Your task to perform on an android device: open app "Google Maps" Image 0: 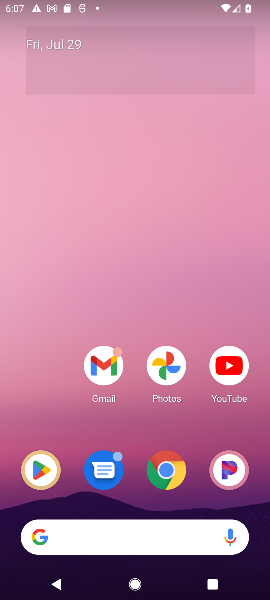
Step 0: drag from (195, 499) to (204, 103)
Your task to perform on an android device: open app "Google Maps" Image 1: 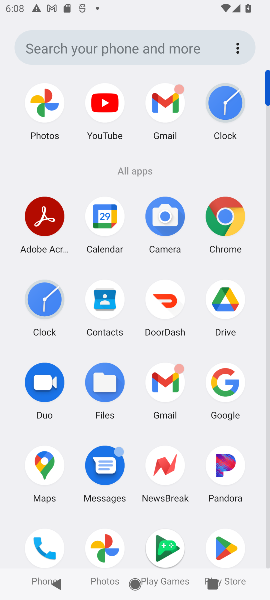
Step 1: drag from (199, 418) to (211, 125)
Your task to perform on an android device: open app "Google Maps" Image 2: 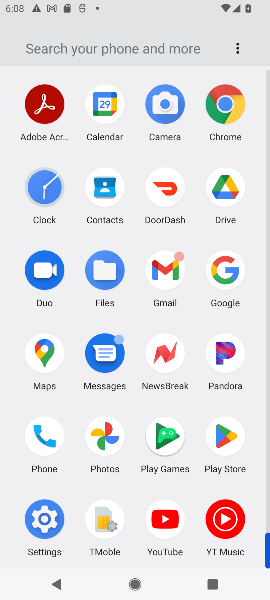
Step 2: drag from (198, 163) to (172, 443)
Your task to perform on an android device: open app "Google Maps" Image 3: 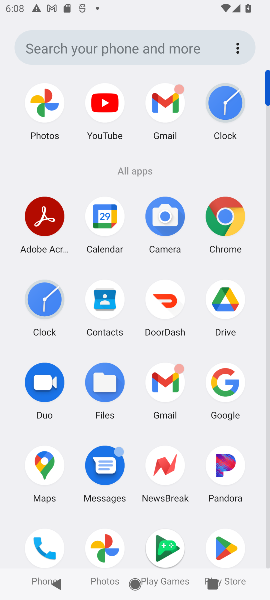
Step 3: click (231, 546)
Your task to perform on an android device: open app "Google Maps" Image 4: 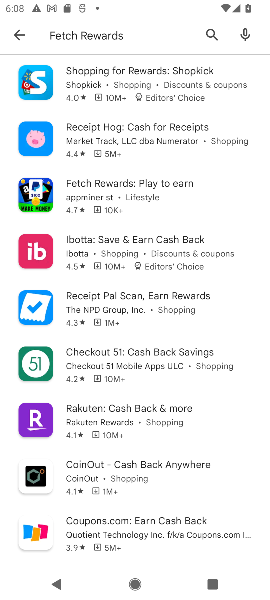
Step 4: click (159, 44)
Your task to perform on an android device: open app "Google Maps" Image 5: 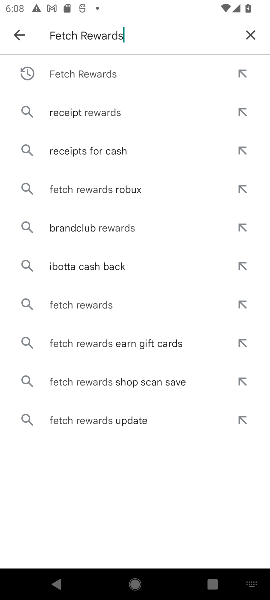
Step 5: click (249, 34)
Your task to perform on an android device: open app "Google Maps" Image 6: 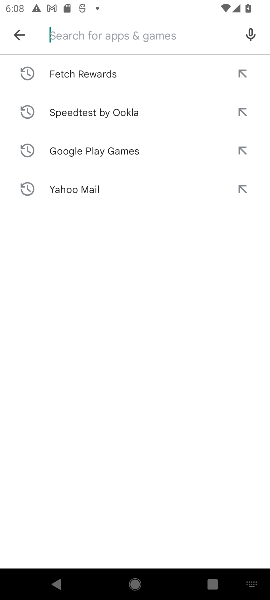
Step 6: type "Google Maps"
Your task to perform on an android device: open app "Google Maps" Image 7: 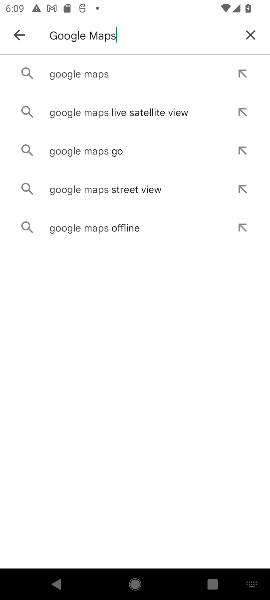
Step 7: press enter
Your task to perform on an android device: open app "Google Maps" Image 8: 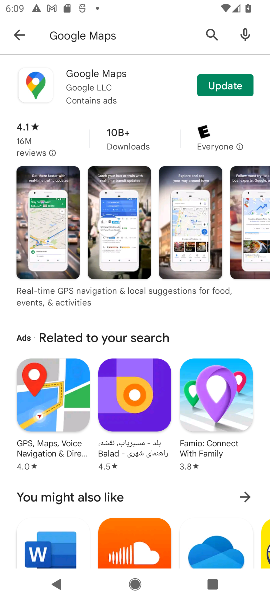
Step 8: click (106, 94)
Your task to perform on an android device: open app "Google Maps" Image 9: 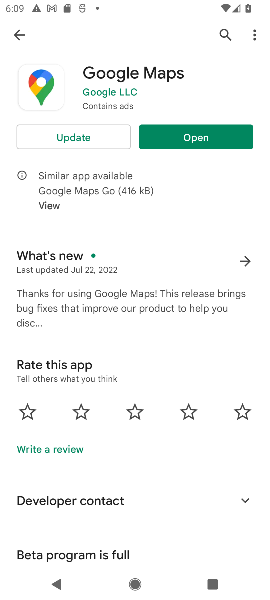
Step 9: click (184, 133)
Your task to perform on an android device: open app "Google Maps" Image 10: 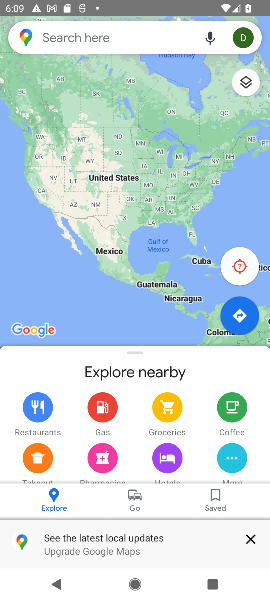
Step 10: task complete